Your task to perform on an android device: change your default location settings in chrome Image 0: 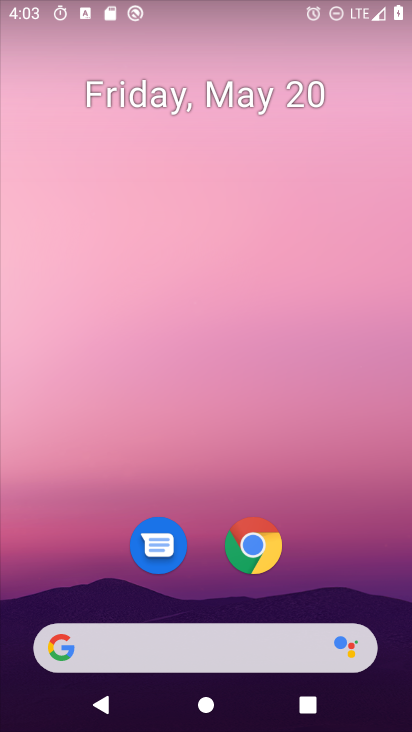
Step 0: drag from (195, 623) to (161, 2)
Your task to perform on an android device: change your default location settings in chrome Image 1: 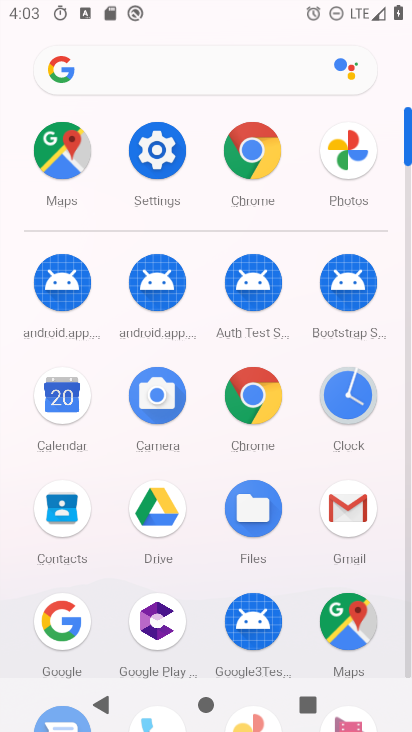
Step 1: click (254, 403)
Your task to perform on an android device: change your default location settings in chrome Image 2: 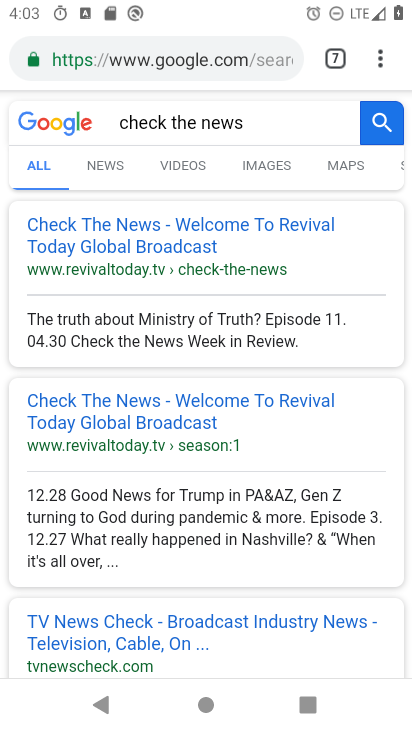
Step 2: drag from (383, 45) to (211, 577)
Your task to perform on an android device: change your default location settings in chrome Image 3: 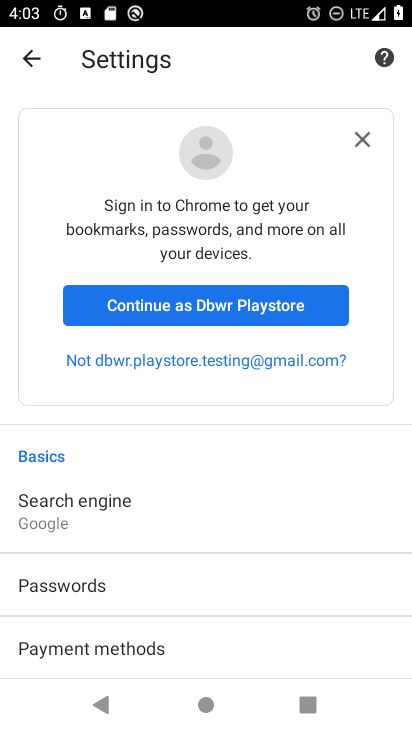
Step 3: drag from (164, 678) to (249, 166)
Your task to perform on an android device: change your default location settings in chrome Image 4: 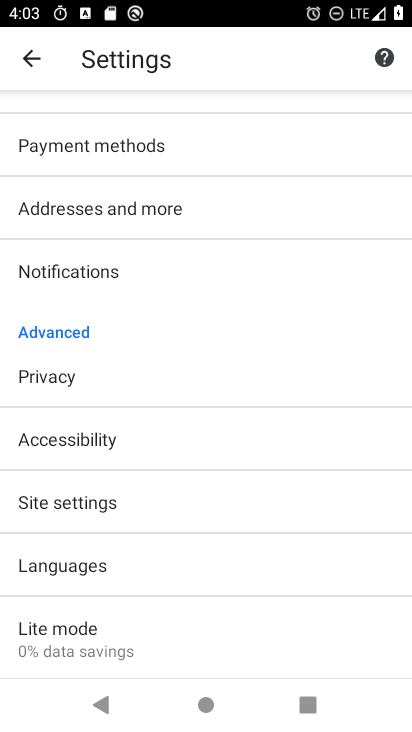
Step 4: click (132, 495)
Your task to perform on an android device: change your default location settings in chrome Image 5: 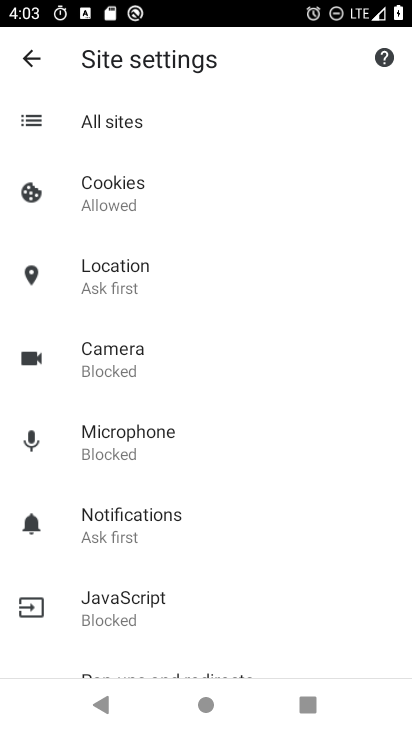
Step 5: click (155, 275)
Your task to perform on an android device: change your default location settings in chrome Image 6: 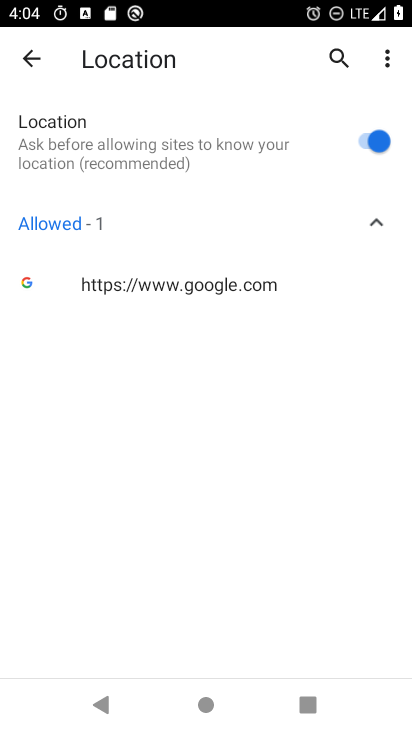
Step 6: task complete